Your task to perform on an android device: Show me some nice wallpapers for my laptop Image 0: 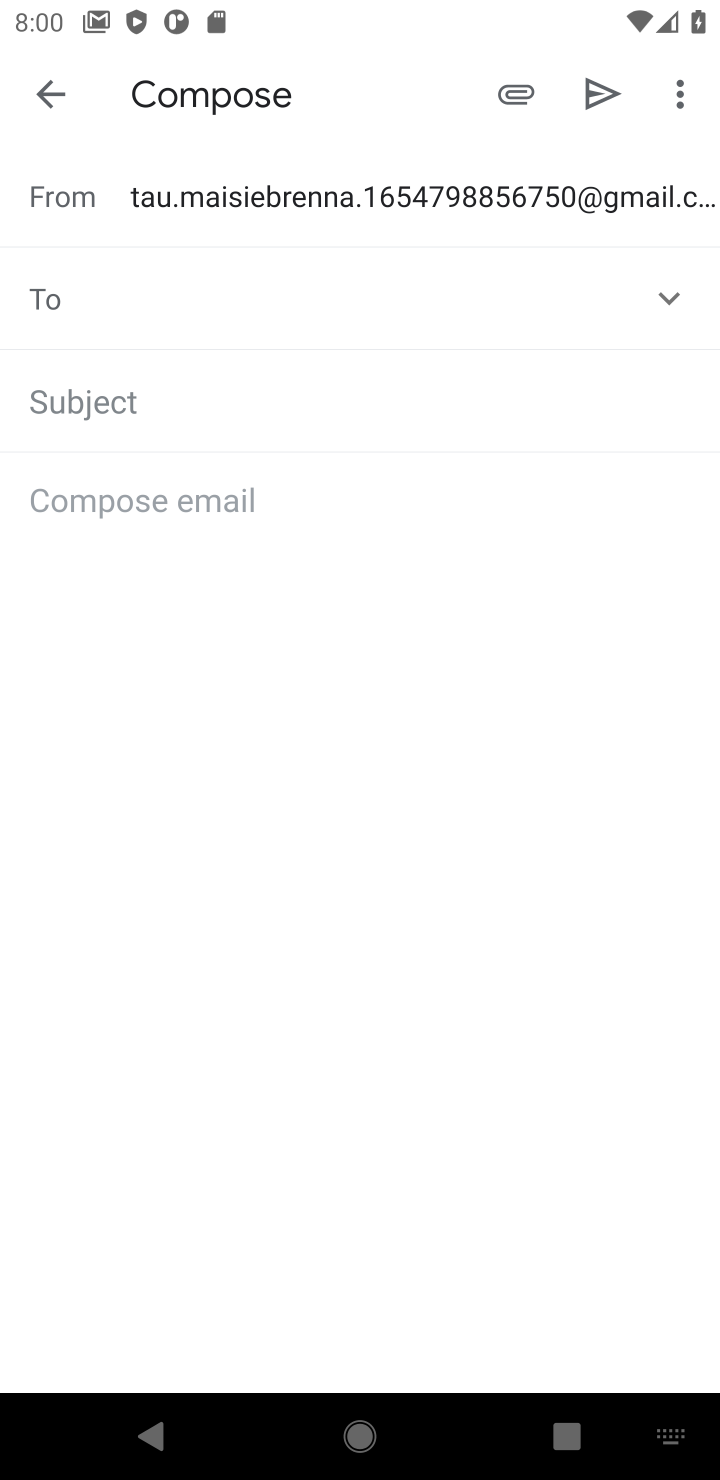
Step 0: press home button
Your task to perform on an android device: Show me some nice wallpapers for my laptop Image 1: 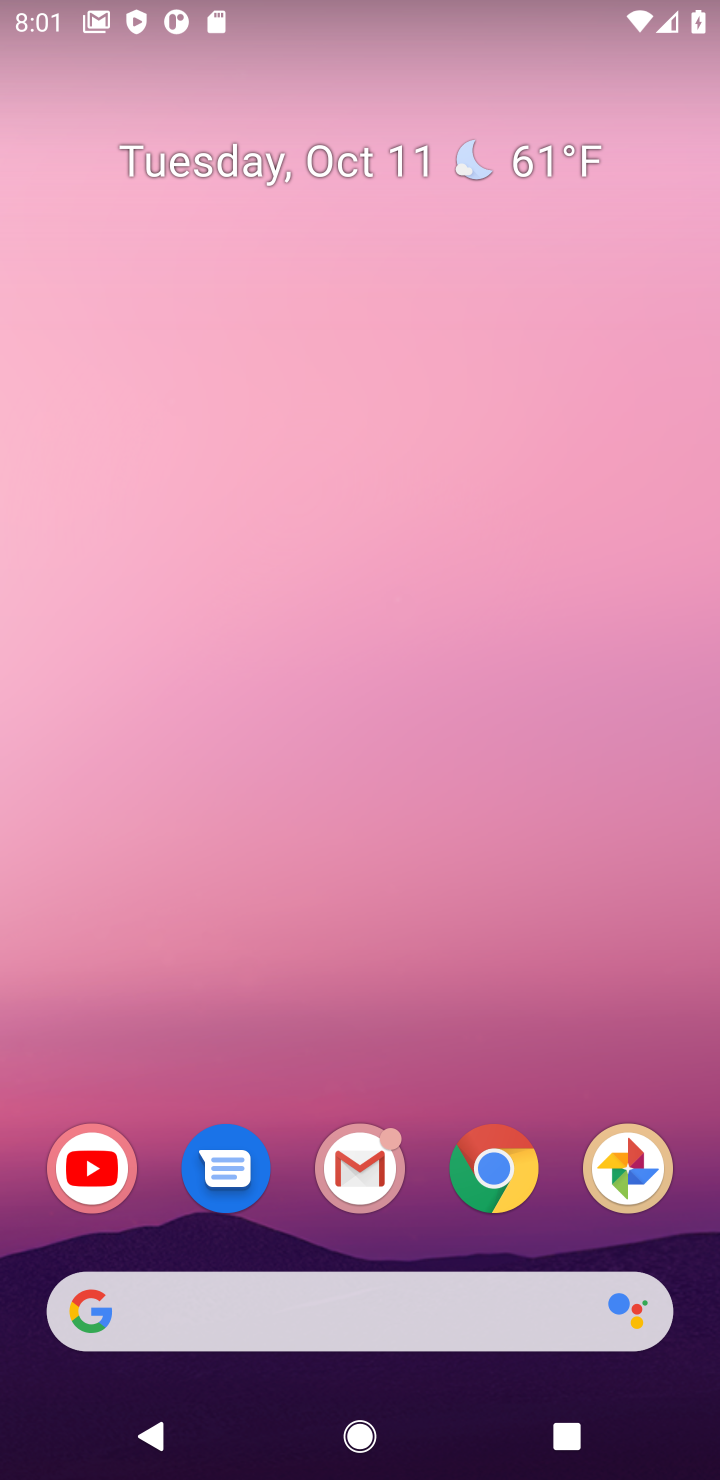
Step 1: click (457, 1184)
Your task to perform on an android device: Show me some nice wallpapers for my laptop Image 2: 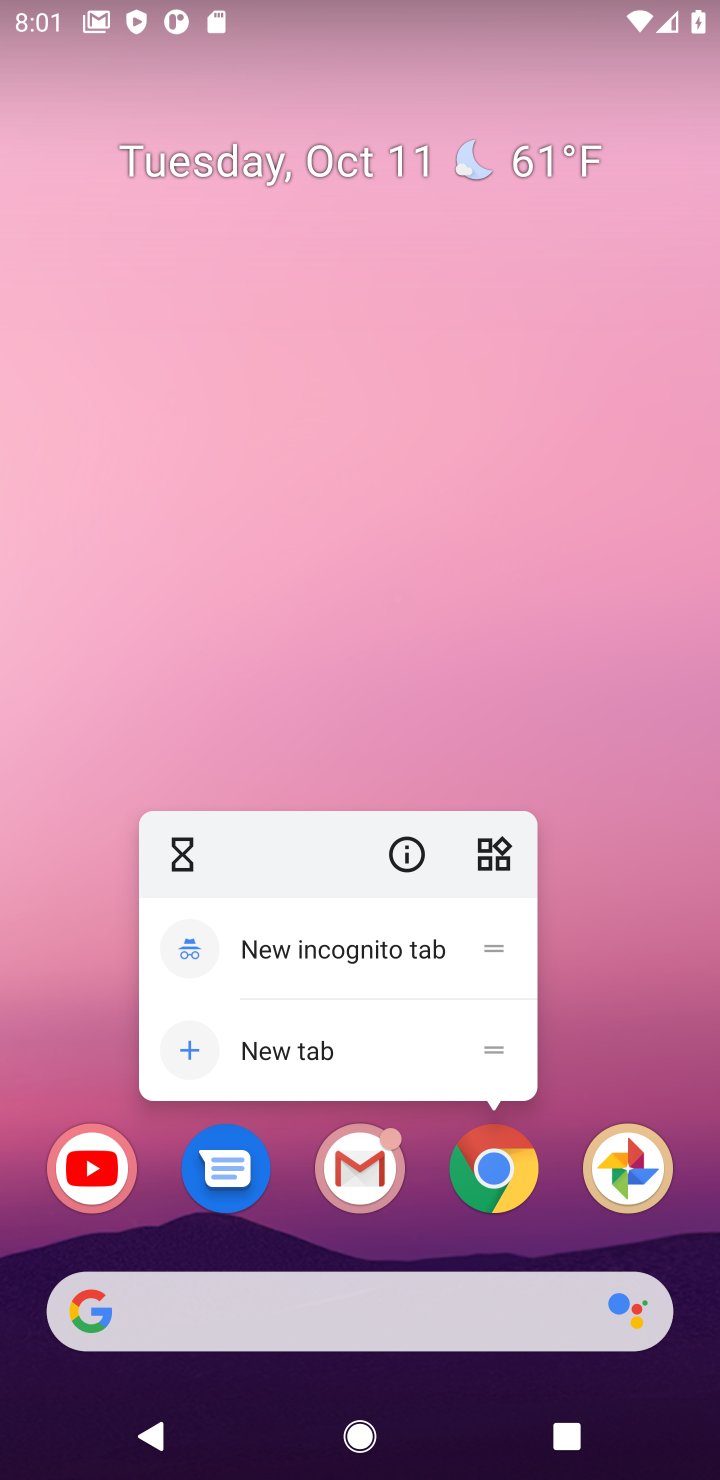
Step 2: press back button
Your task to perform on an android device: Show me some nice wallpapers for my laptop Image 3: 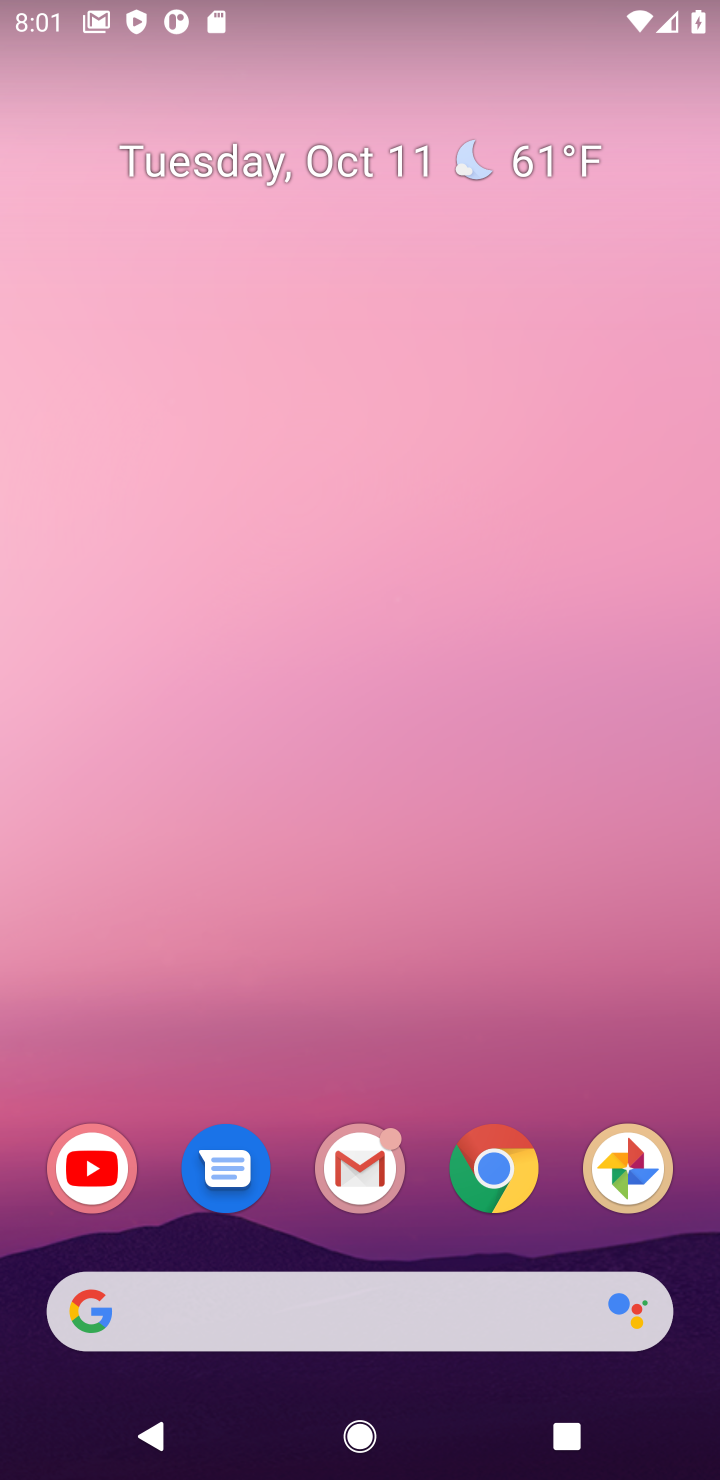
Step 3: click (495, 1174)
Your task to perform on an android device: Show me some nice wallpapers for my laptop Image 4: 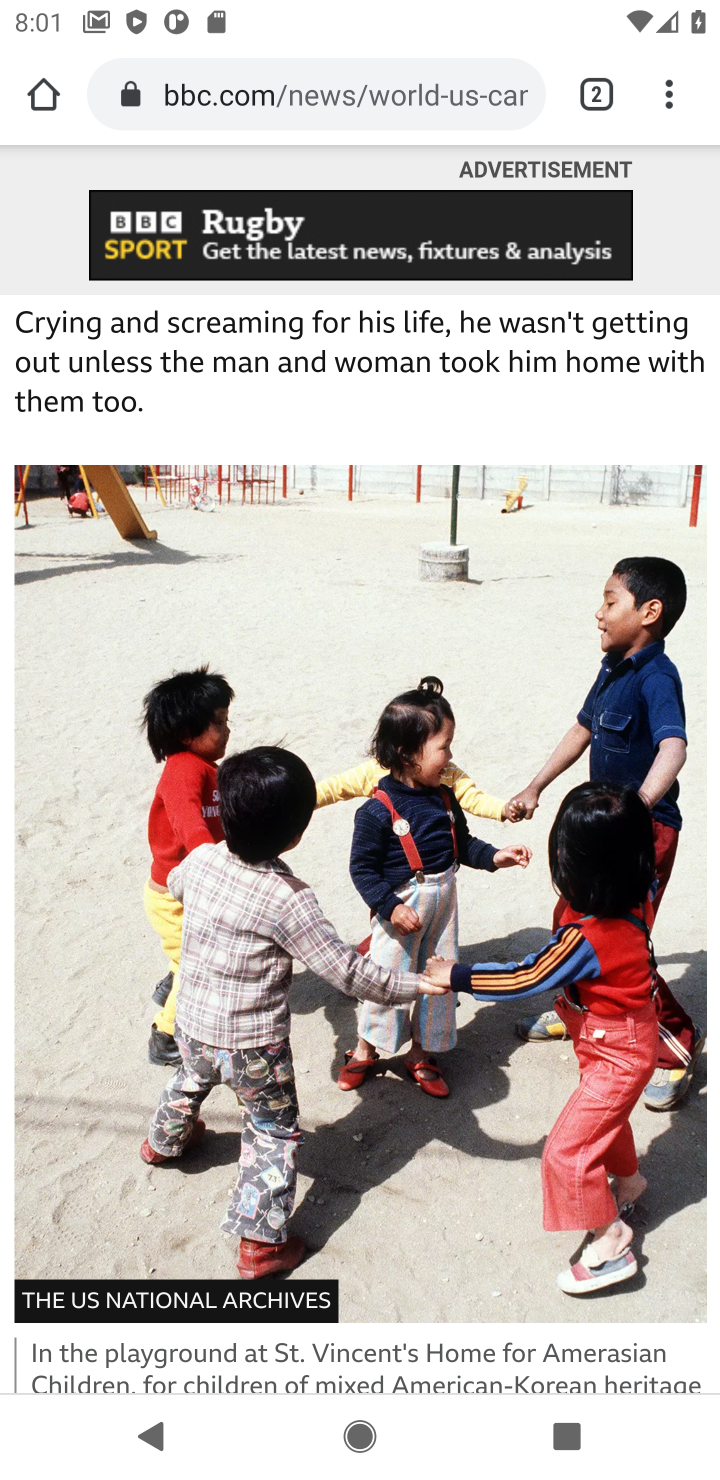
Step 4: click (369, 97)
Your task to perform on an android device: Show me some nice wallpapers for my laptop Image 5: 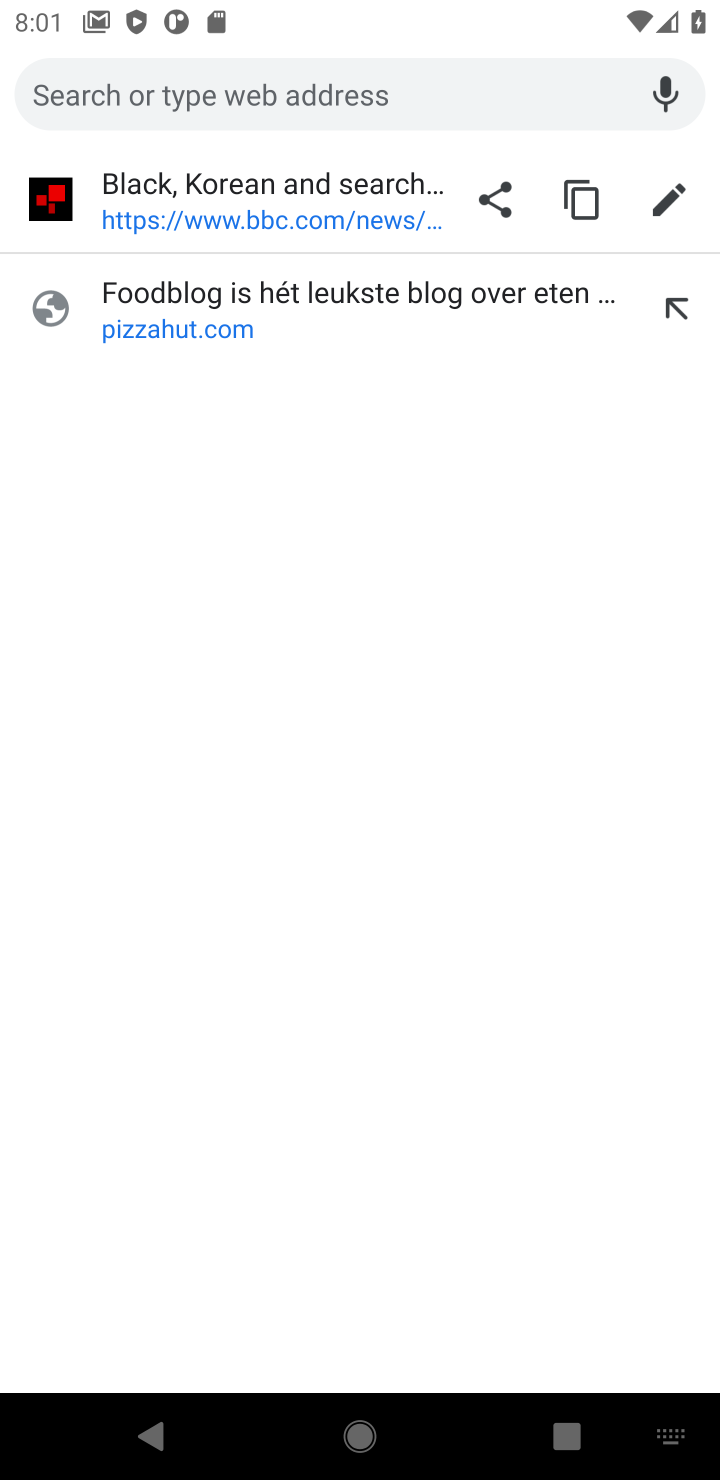
Step 5: type "nice wallpapers for my laptop"
Your task to perform on an android device: Show me some nice wallpapers for my laptop Image 6: 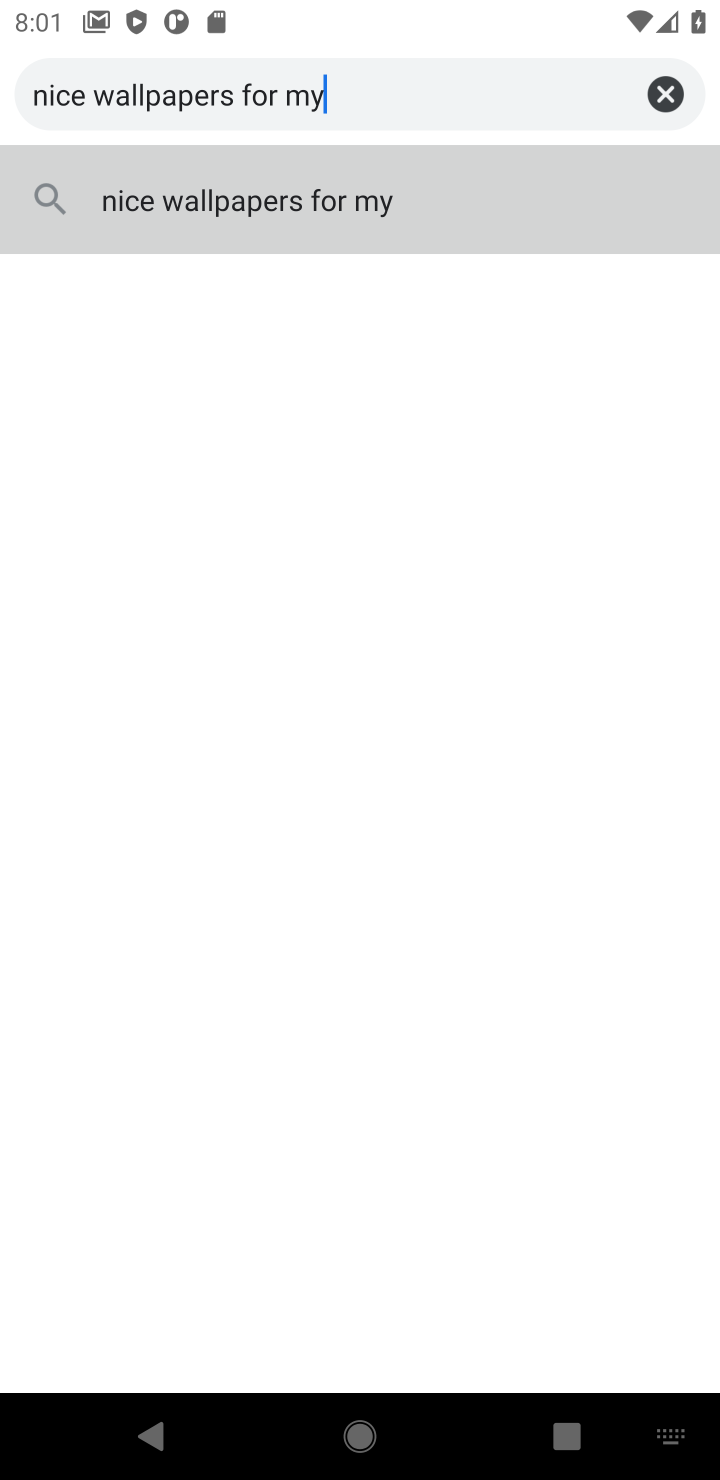
Step 6: click (370, 205)
Your task to perform on an android device: Show me some nice wallpapers for my laptop Image 7: 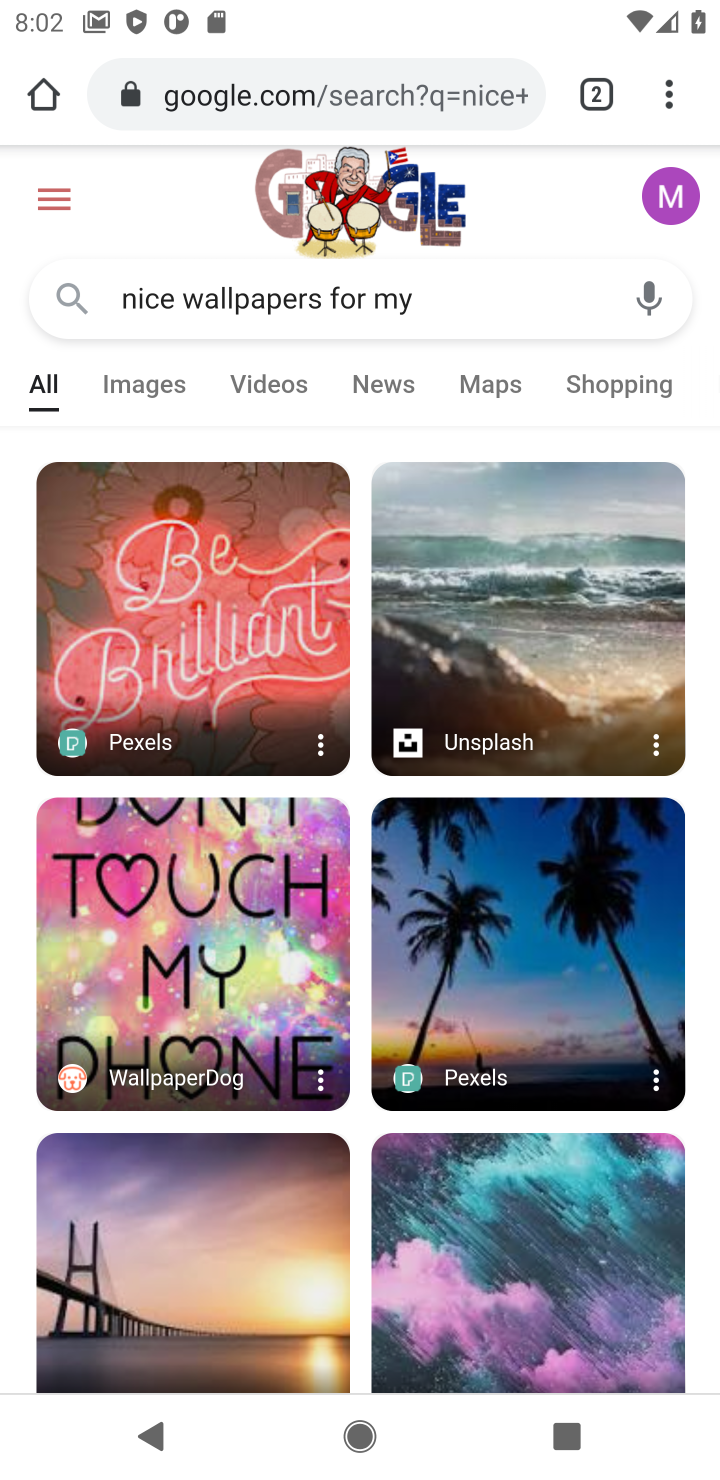
Step 7: type "nice walpaper for my laptop"
Your task to perform on an android device: Show me some nice wallpapers for my laptop Image 8: 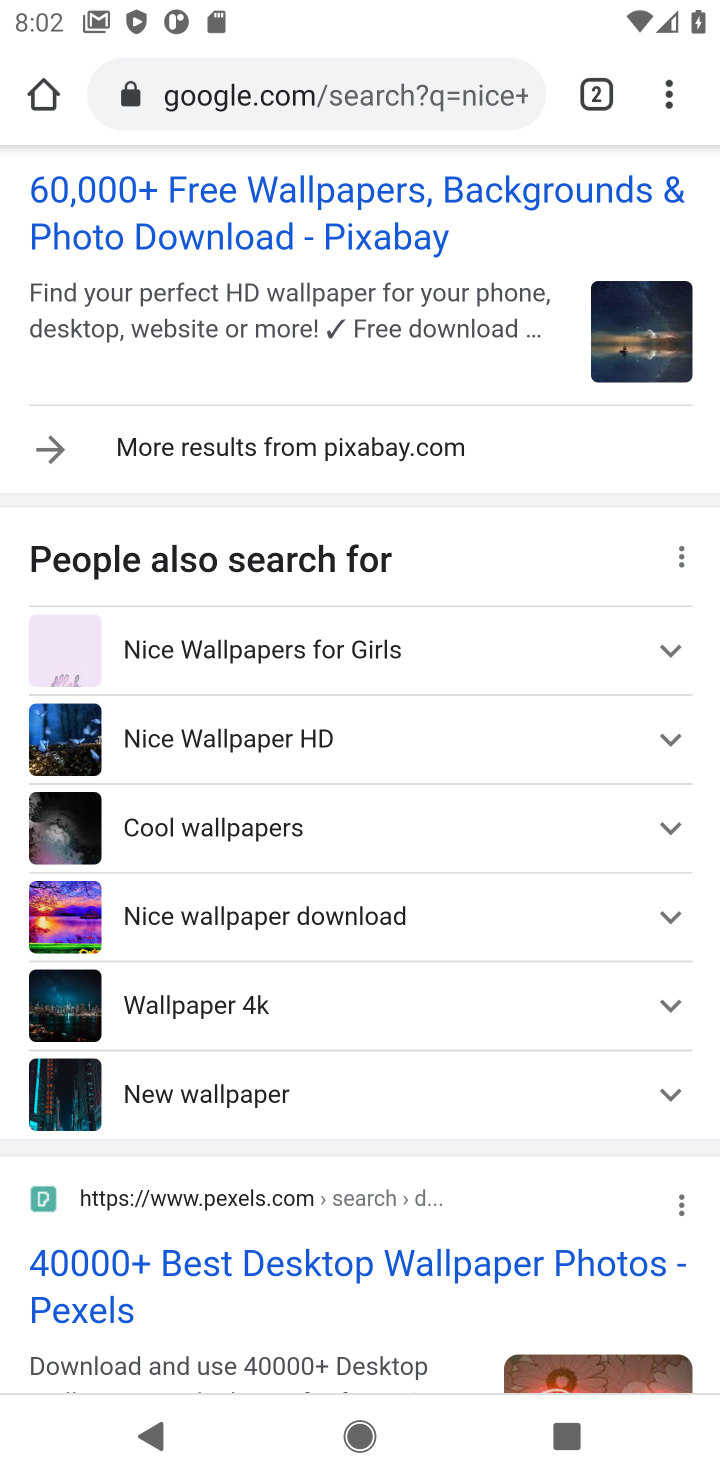
Step 8: click (337, 1269)
Your task to perform on an android device: Show me some nice wallpapers for my laptop Image 9: 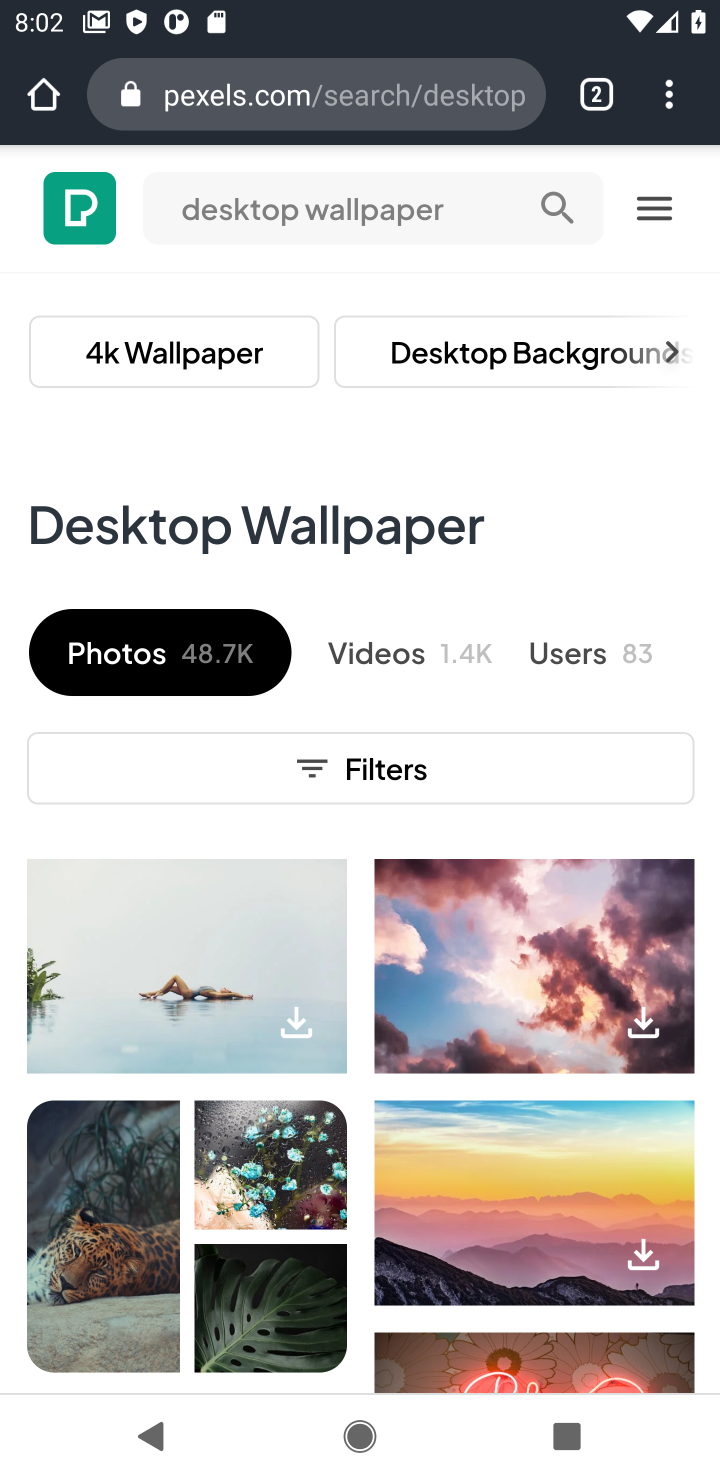
Step 9: task complete